Your task to perform on an android device: check storage Image 0: 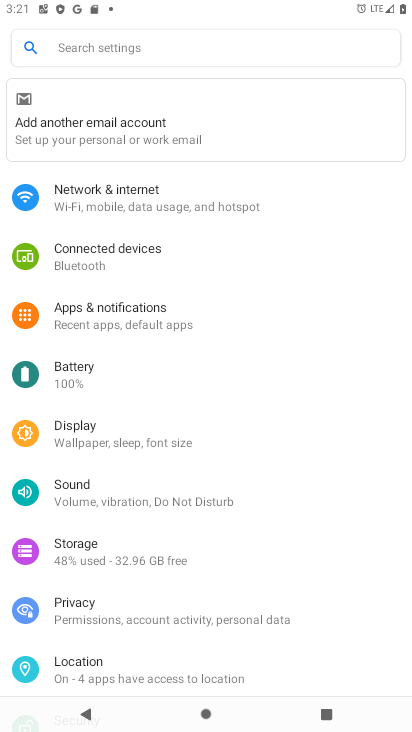
Step 0: click (74, 553)
Your task to perform on an android device: check storage Image 1: 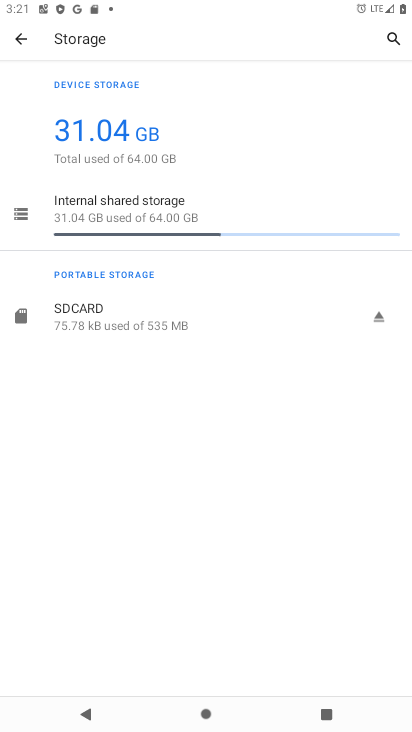
Step 1: click (124, 216)
Your task to perform on an android device: check storage Image 2: 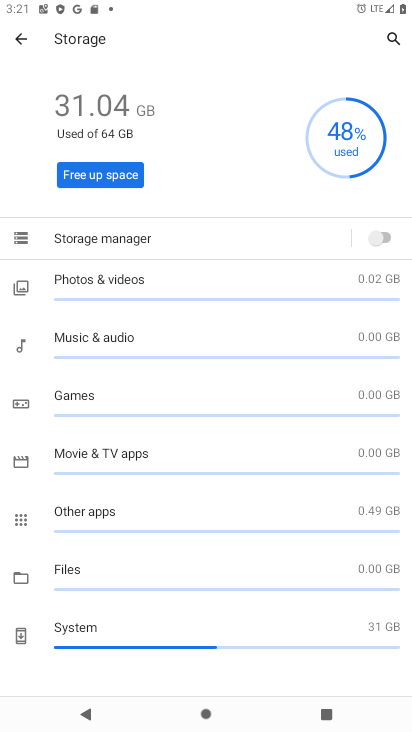
Step 2: task complete